Your task to perform on an android device: Go to sound settings Image 0: 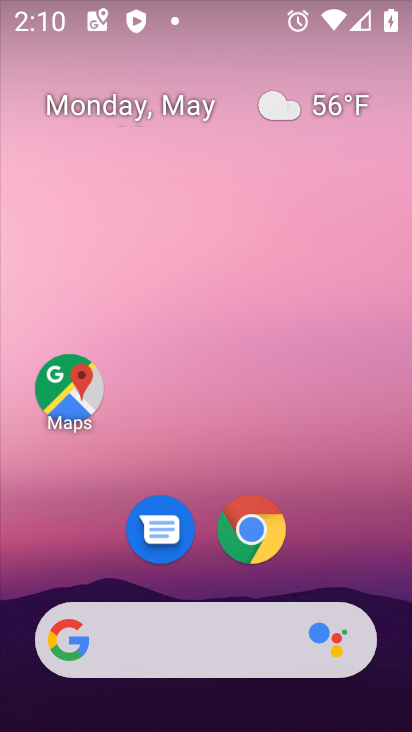
Step 0: drag from (304, 571) to (345, 67)
Your task to perform on an android device: Go to sound settings Image 1: 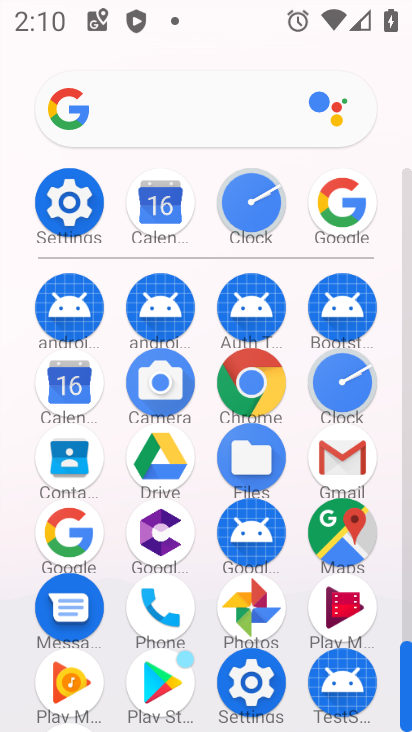
Step 1: click (61, 211)
Your task to perform on an android device: Go to sound settings Image 2: 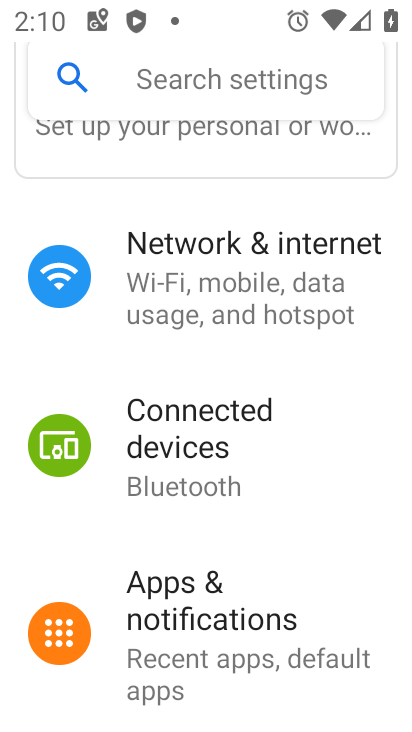
Step 2: drag from (226, 439) to (241, 314)
Your task to perform on an android device: Go to sound settings Image 3: 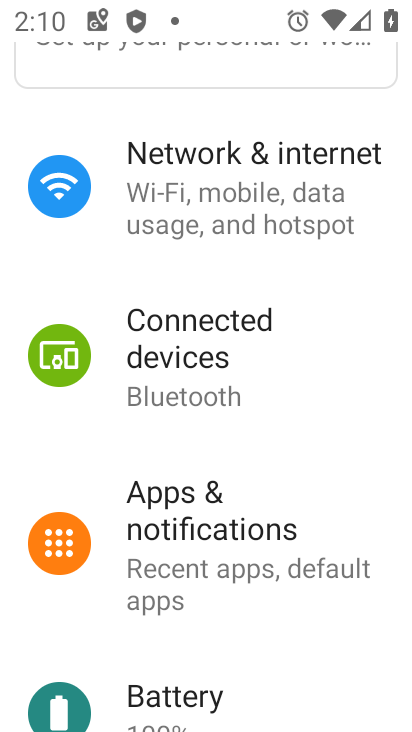
Step 3: drag from (213, 481) to (206, 206)
Your task to perform on an android device: Go to sound settings Image 4: 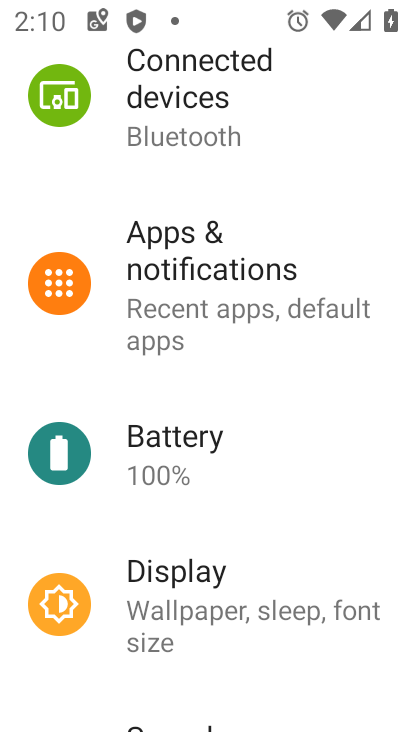
Step 4: drag from (243, 534) to (221, 372)
Your task to perform on an android device: Go to sound settings Image 5: 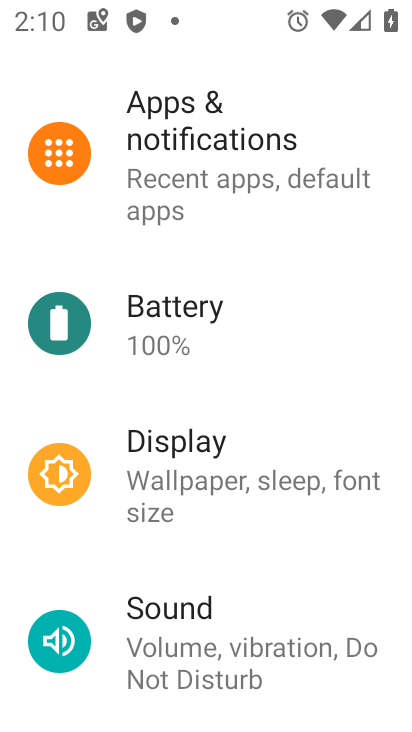
Step 5: click (209, 638)
Your task to perform on an android device: Go to sound settings Image 6: 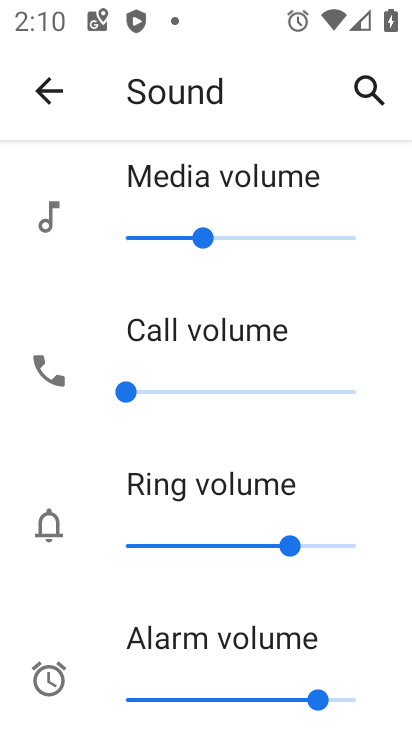
Step 6: task complete